Your task to perform on an android device: Open network settings Image 0: 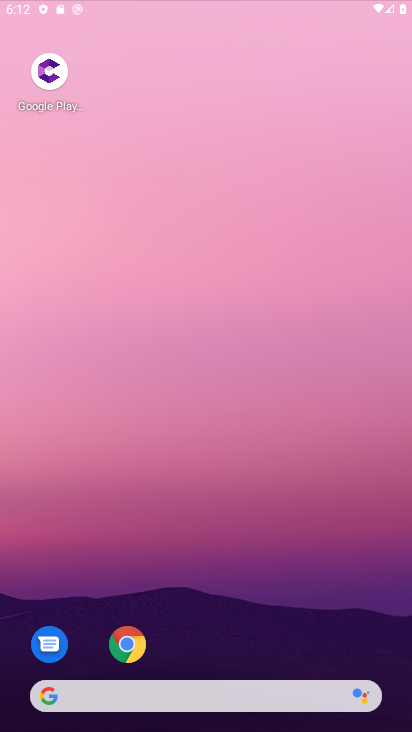
Step 0: click (130, 642)
Your task to perform on an android device: Open network settings Image 1: 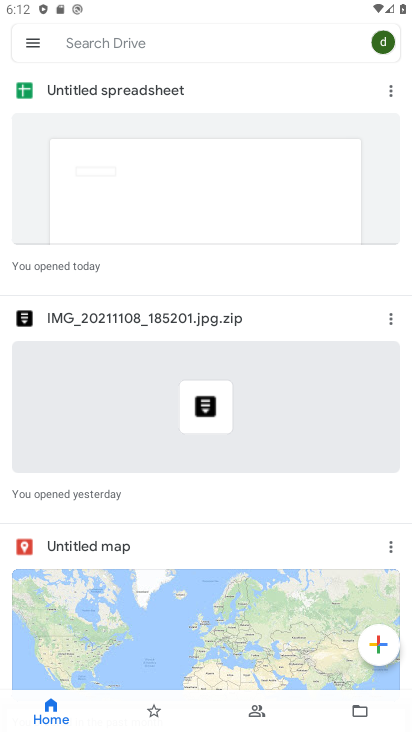
Step 1: press home button
Your task to perform on an android device: Open network settings Image 2: 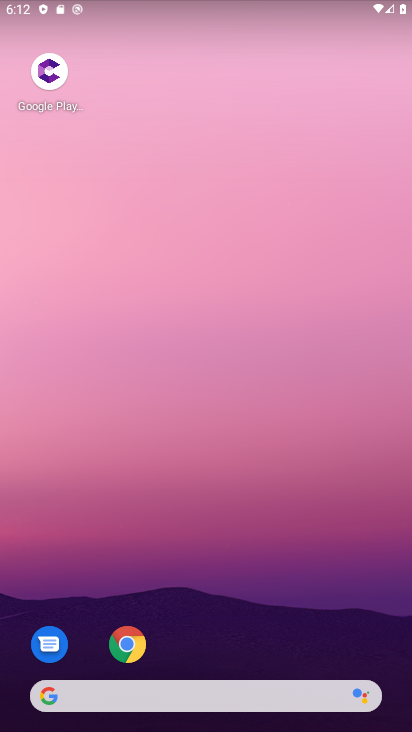
Step 2: drag from (197, 651) to (244, 121)
Your task to perform on an android device: Open network settings Image 3: 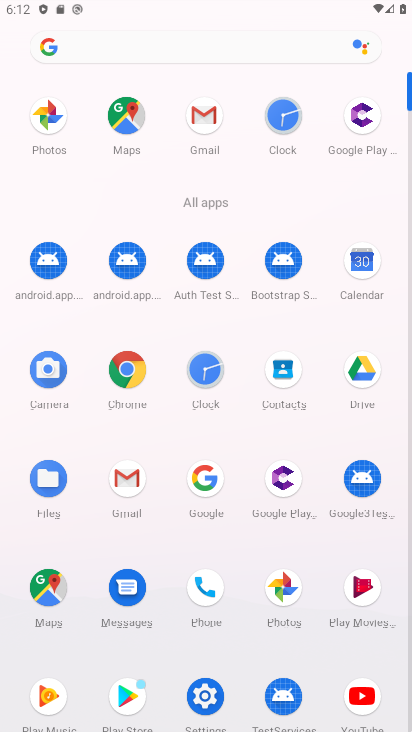
Step 3: click (207, 703)
Your task to perform on an android device: Open network settings Image 4: 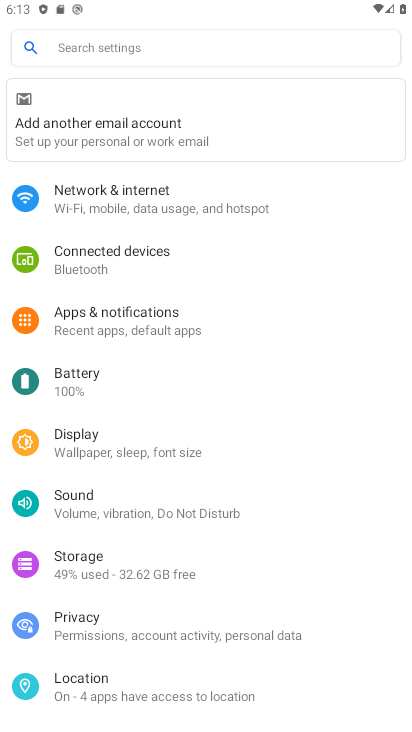
Step 4: click (109, 209)
Your task to perform on an android device: Open network settings Image 5: 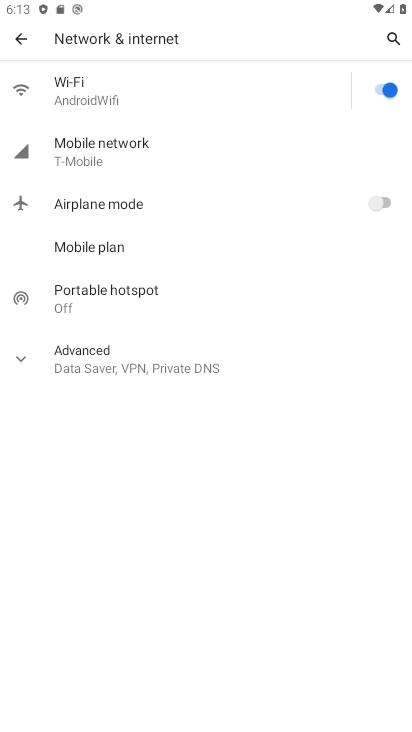
Step 5: task complete